Your task to perform on an android device: What's the weather going to be this weekend? Image 0: 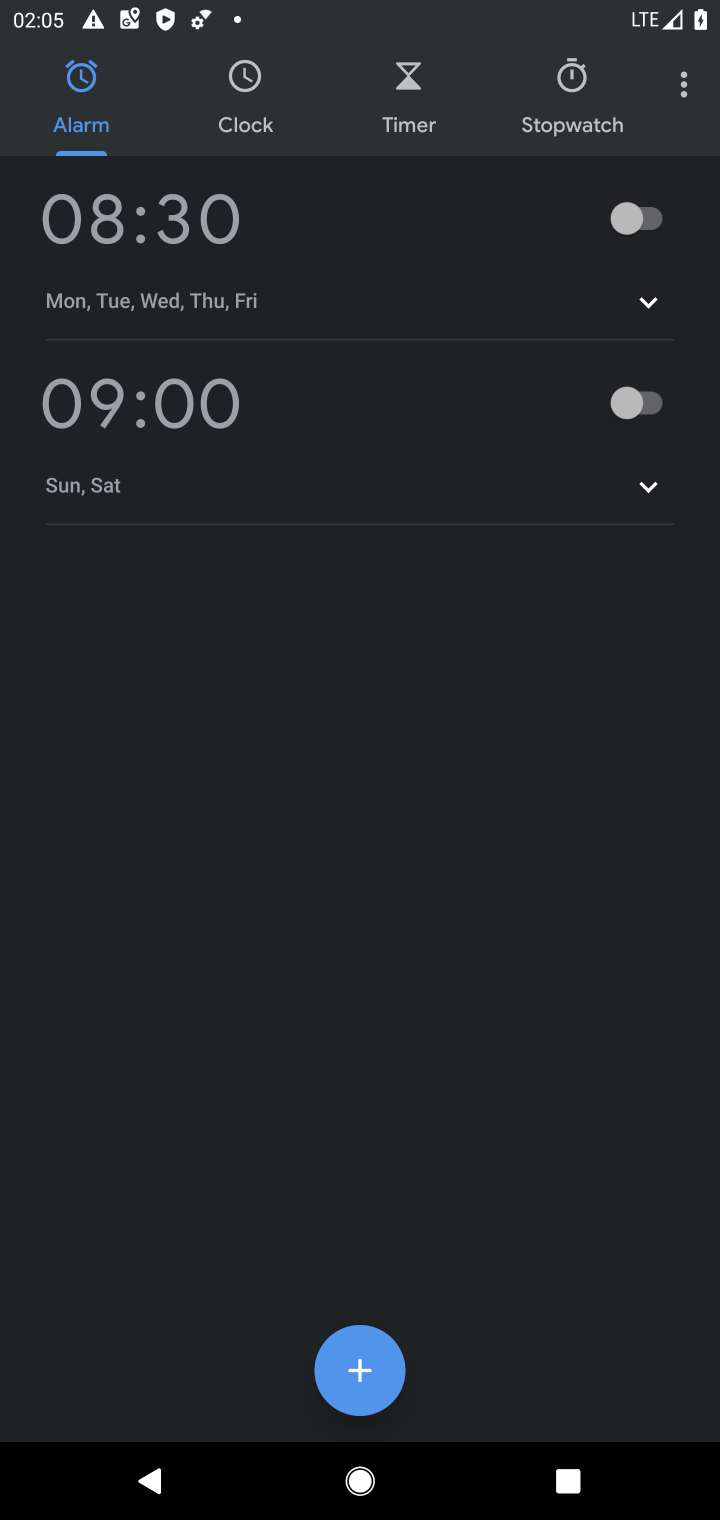
Step 0: press home button
Your task to perform on an android device: What's the weather going to be this weekend? Image 1: 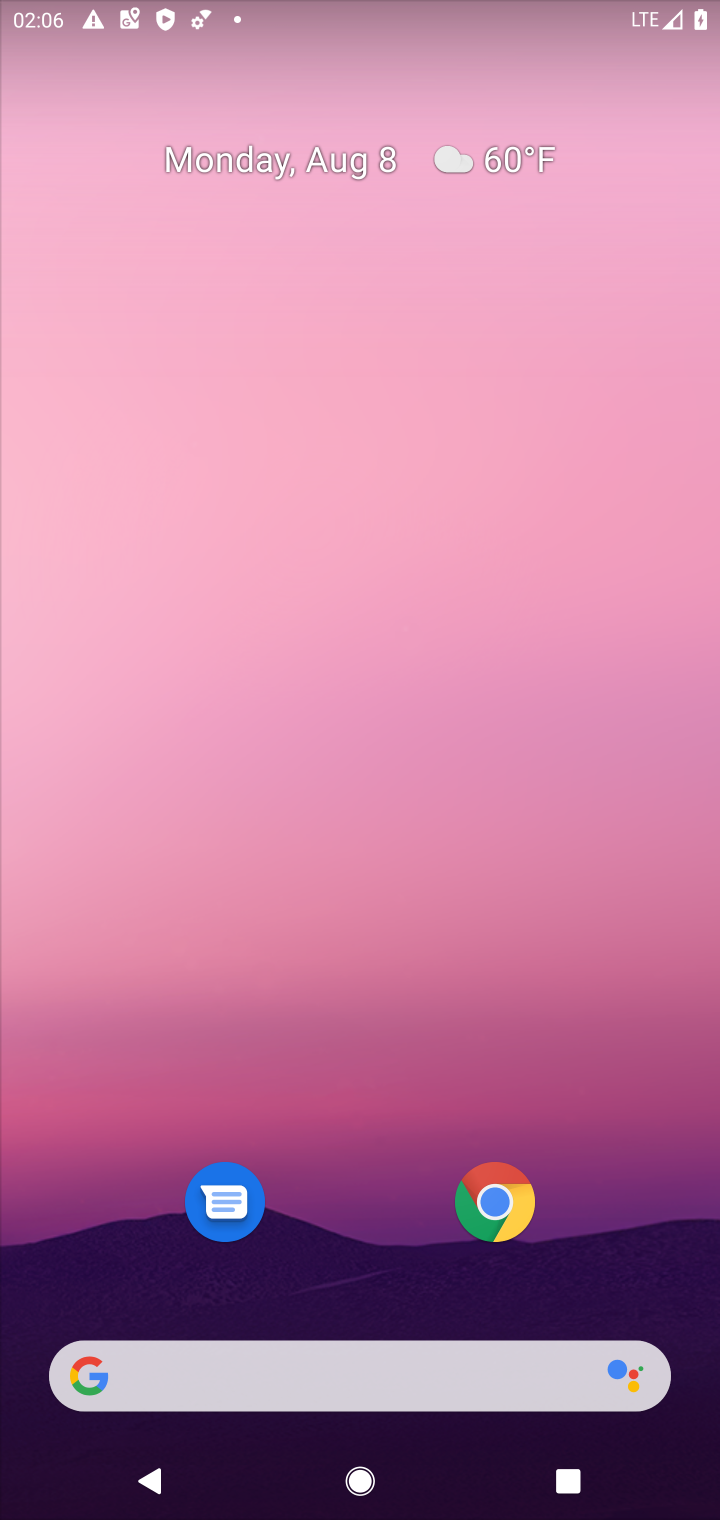
Step 1: drag from (338, 989) to (374, 378)
Your task to perform on an android device: What's the weather going to be this weekend? Image 2: 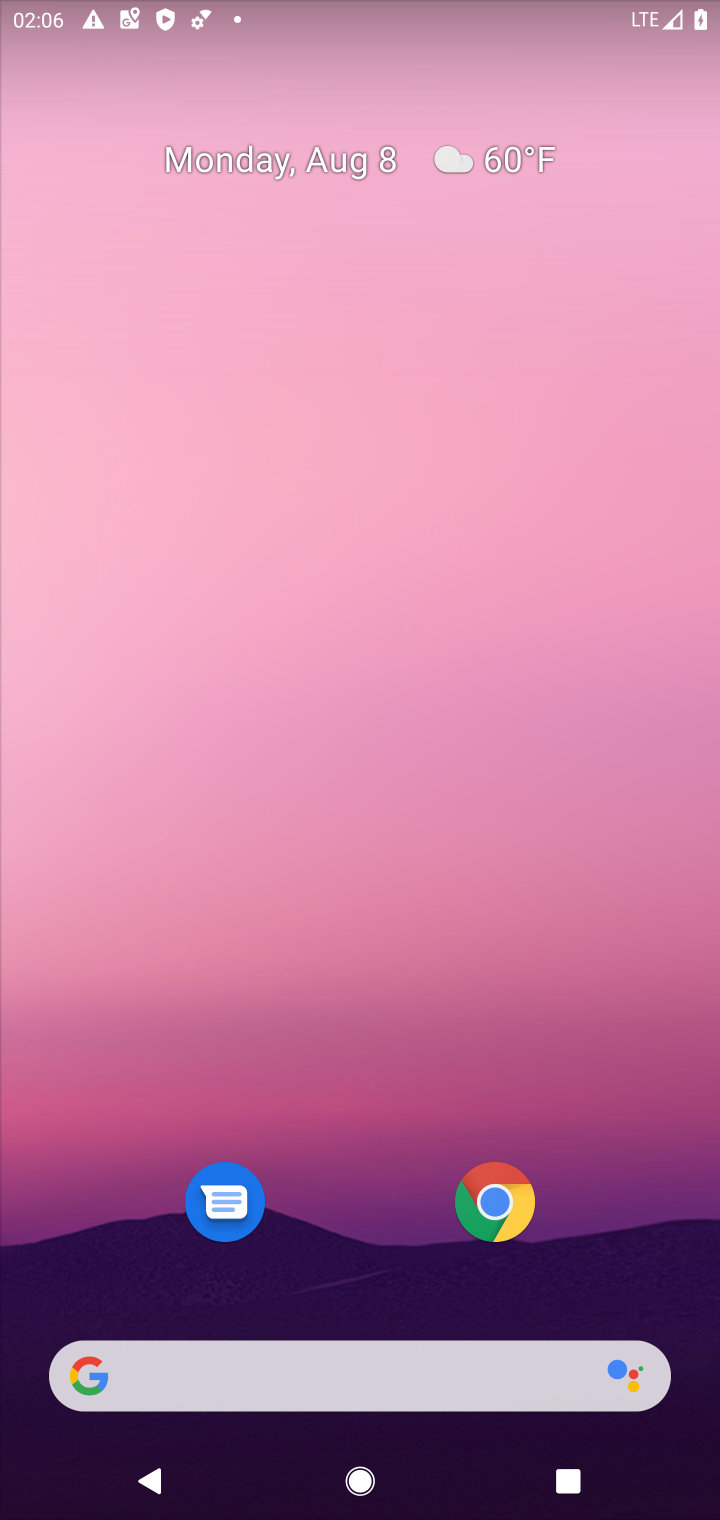
Step 2: click (392, 9)
Your task to perform on an android device: What's the weather going to be this weekend? Image 3: 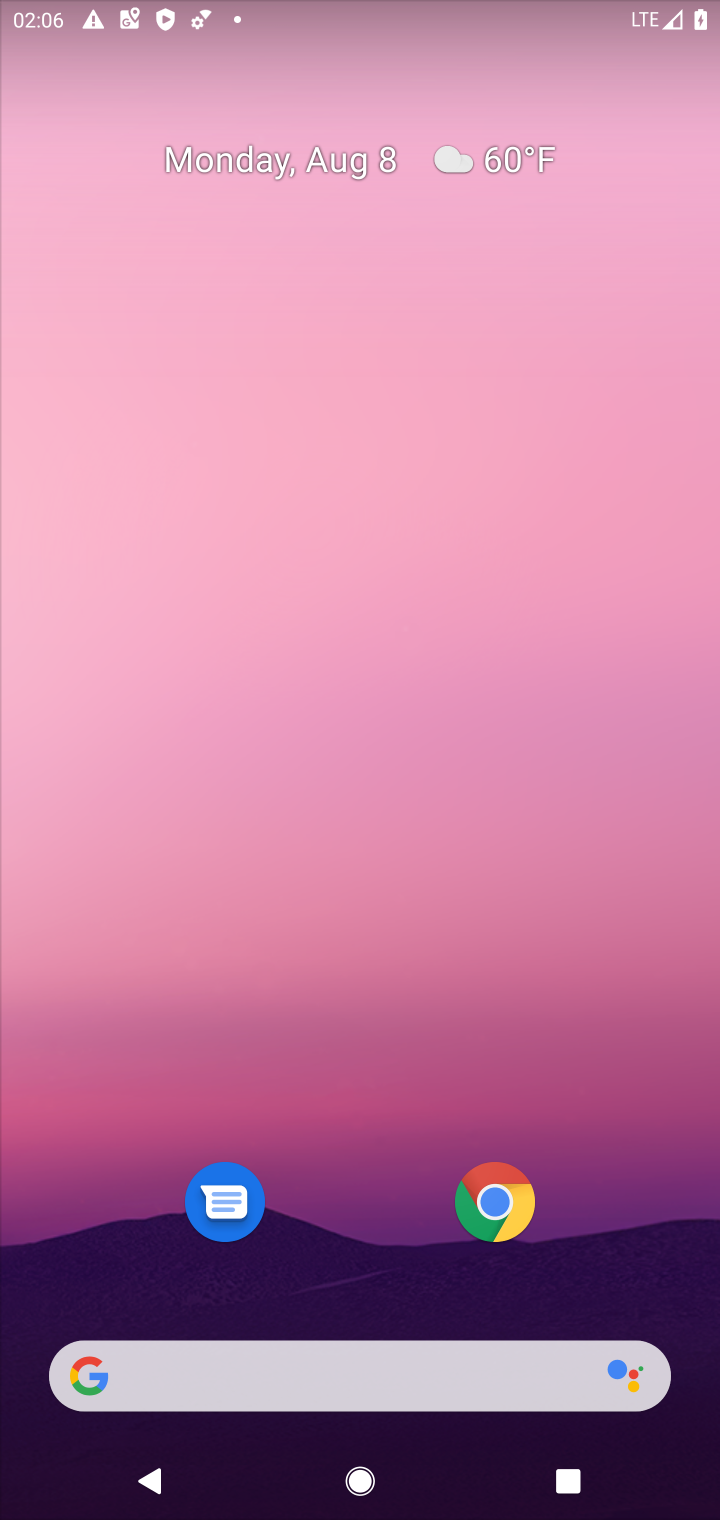
Step 3: drag from (351, 1095) to (446, 106)
Your task to perform on an android device: What's the weather going to be this weekend? Image 4: 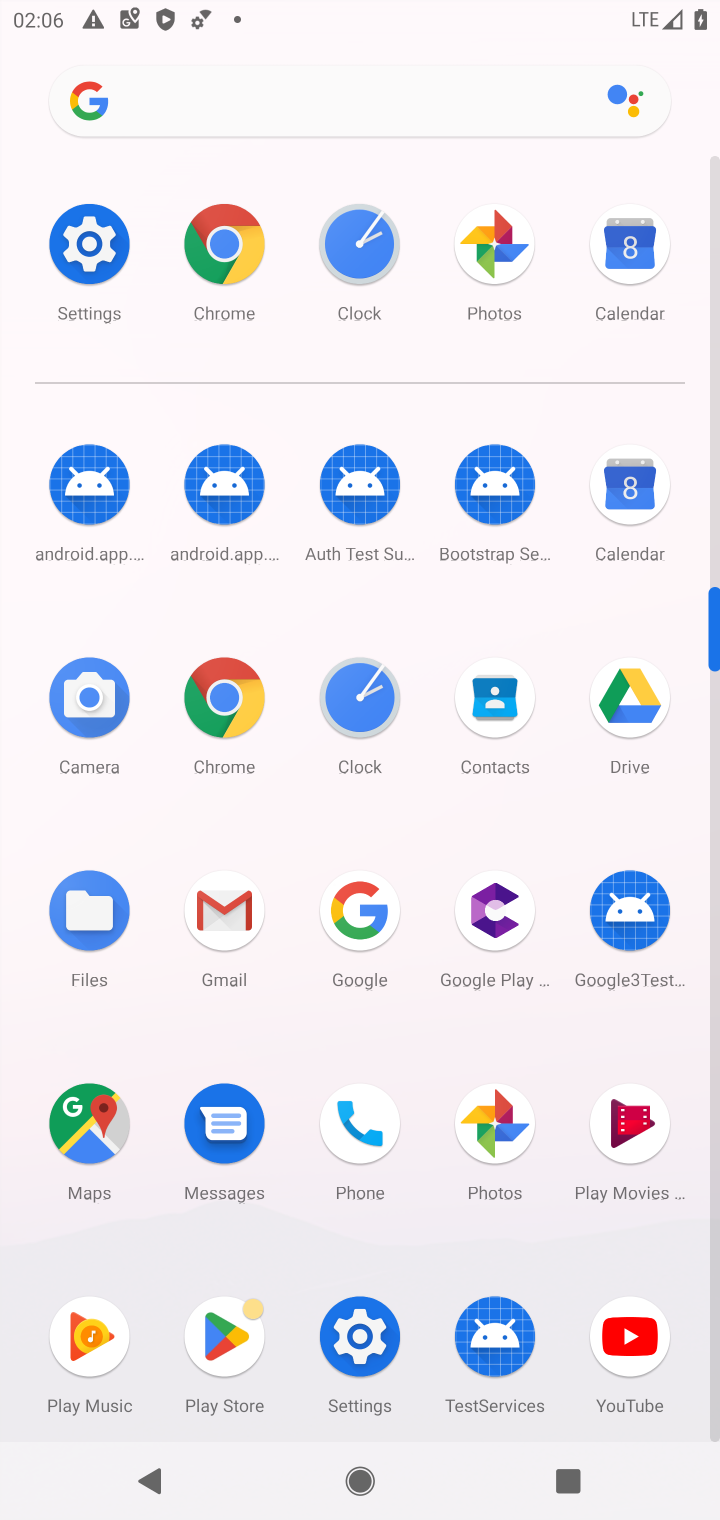
Step 4: click (629, 501)
Your task to perform on an android device: What's the weather going to be this weekend? Image 5: 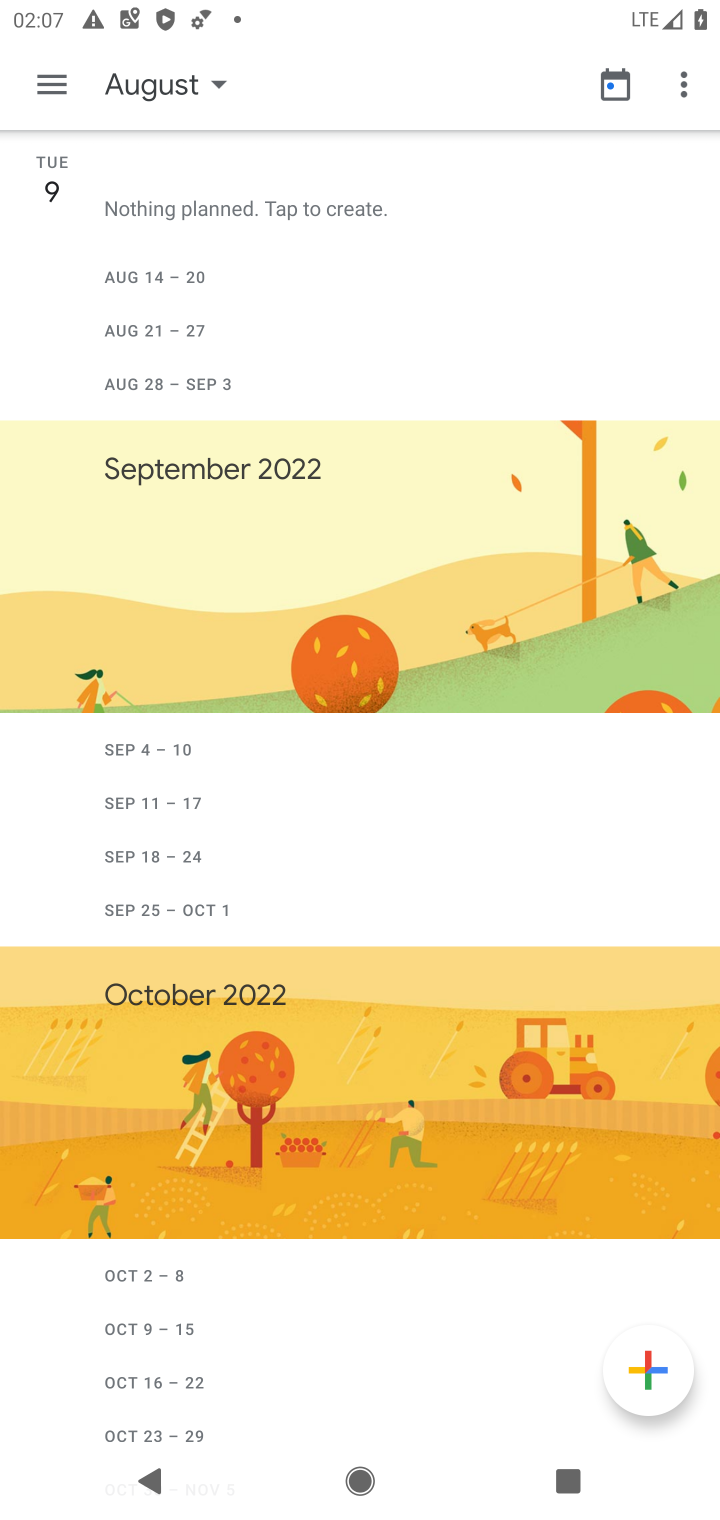
Step 5: click (56, 77)
Your task to perform on an android device: What's the weather going to be this weekend? Image 6: 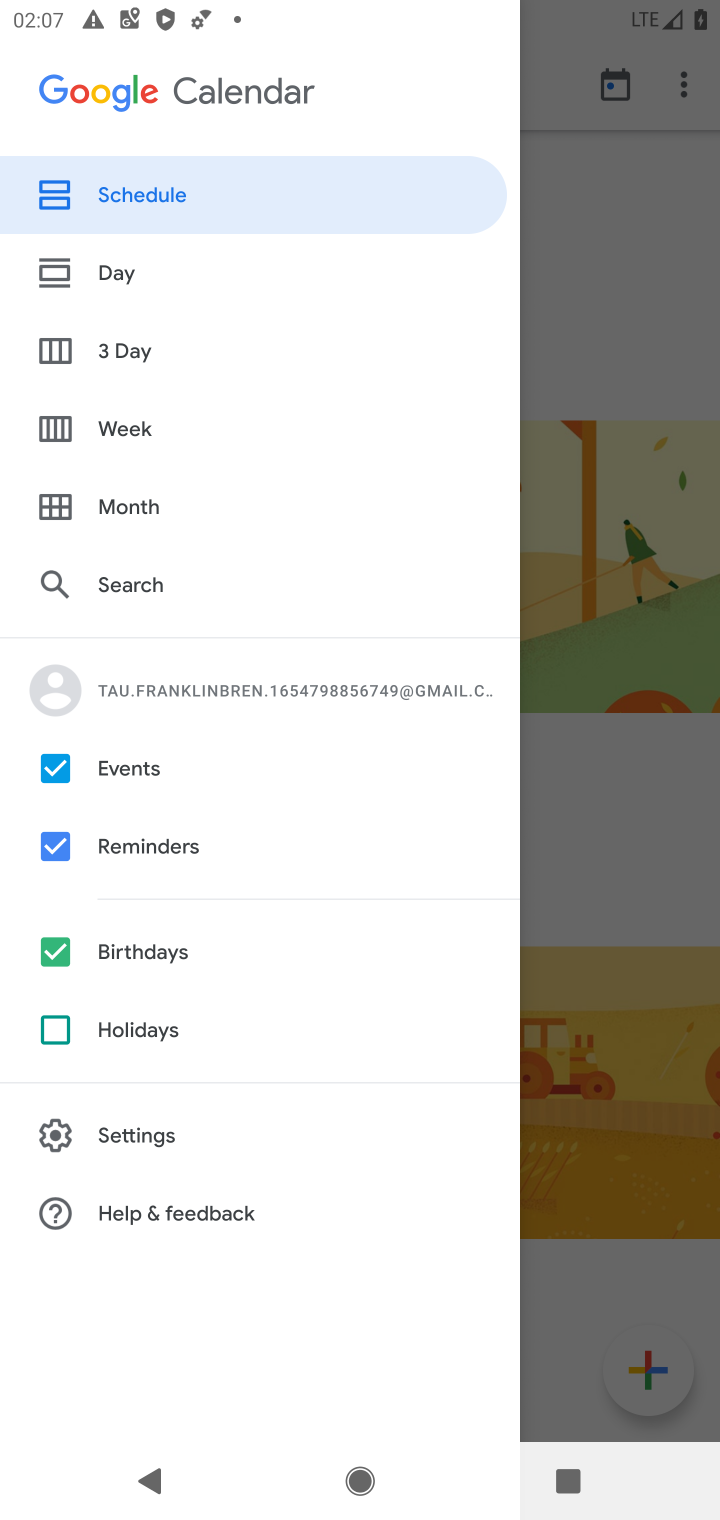
Step 6: click (120, 420)
Your task to perform on an android device: What's the weather going to be this weekend? Image 7: 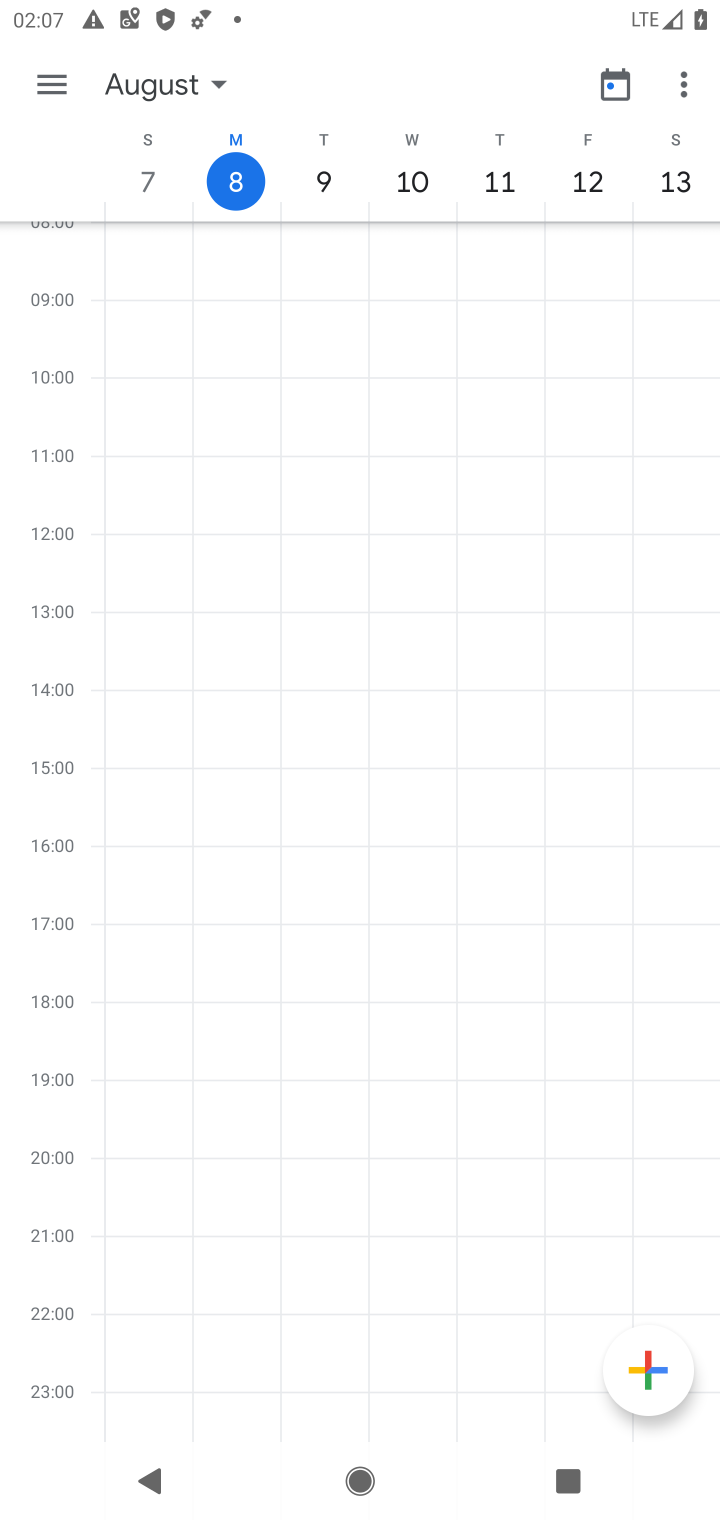
Step 7: click (134, 93)
Your task to perform on an android device: What's the weather going to be this weekend? Image 8: 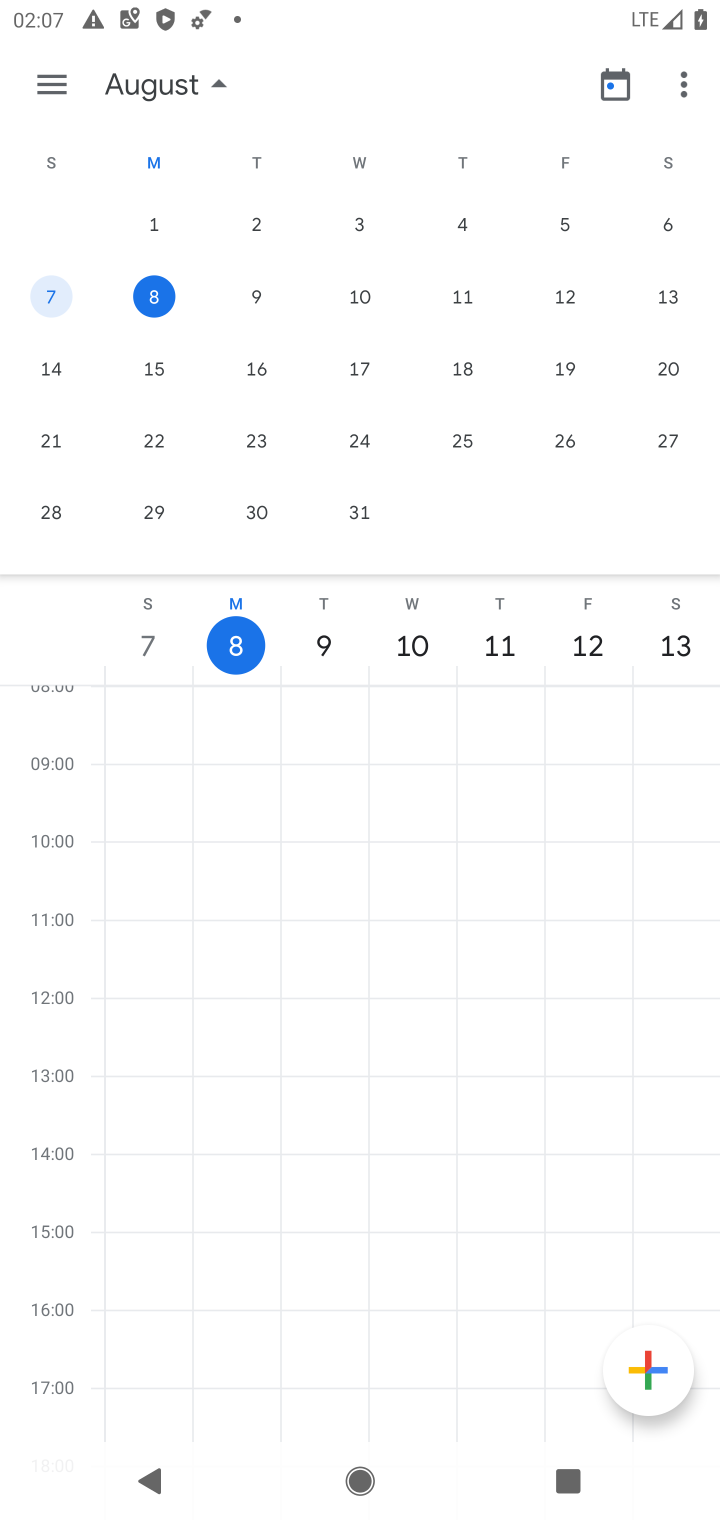
Step 8: task complete